Your task to perform on an android device: open wifi settings Image 0: 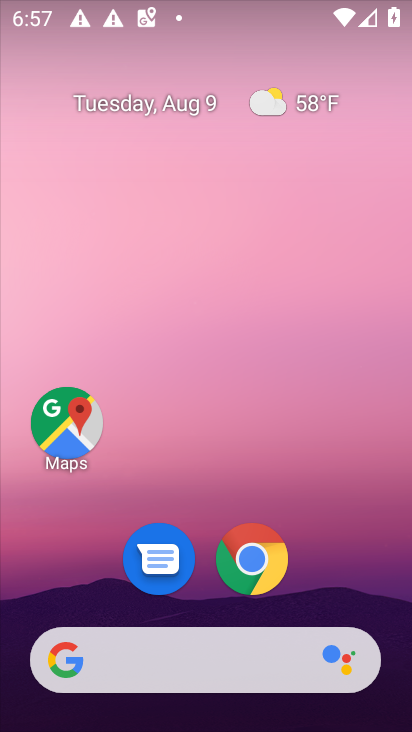
Step 0: drag from (208, 520) to (190, 121)
Your task to perform on an android device: open wifi settings Image 1: 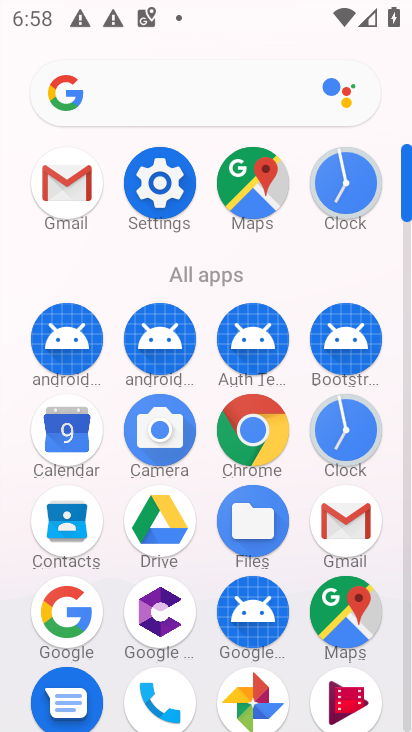
Step 1: drag from (204, 472) to (208, 343)
Your task to perform on an android device: open wifi settings Image 2: 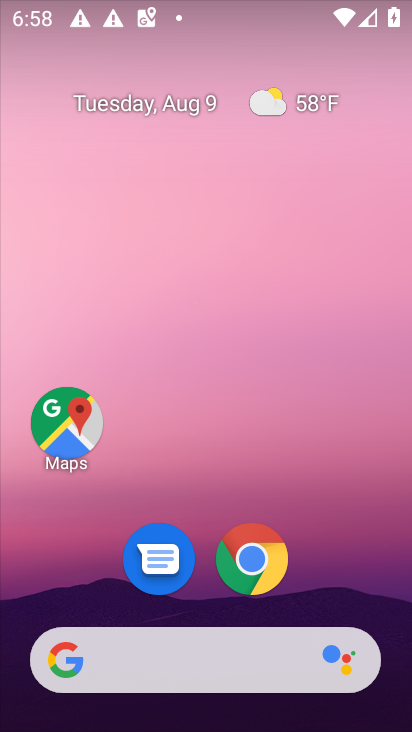
Step 2: drag from (217, 599) to (214, 241)
Your task to perform on an android device: open wifi settings Image 3: 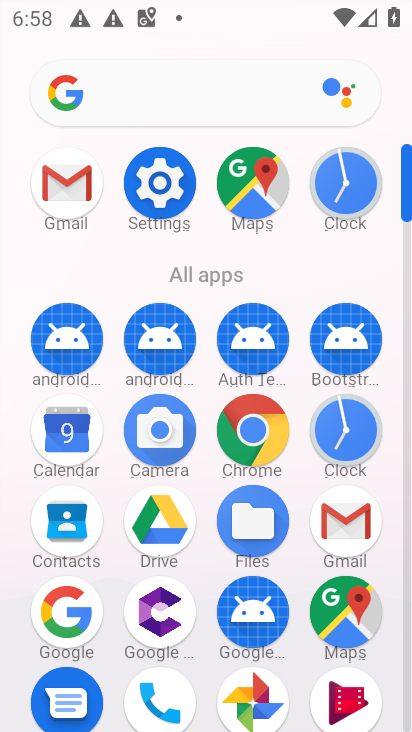
Step 3: click (158, 190)
Your task to perform on an android device: open wifi settings Image 4: 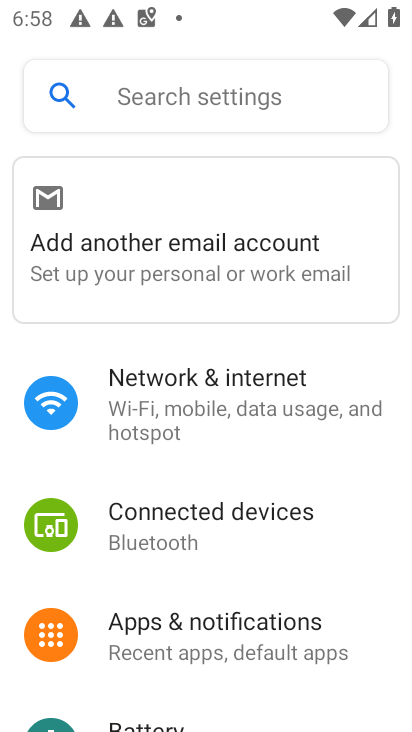
Step 4: click (171, 397)
Your task to perform on an android device: open wifi settings Image 5: 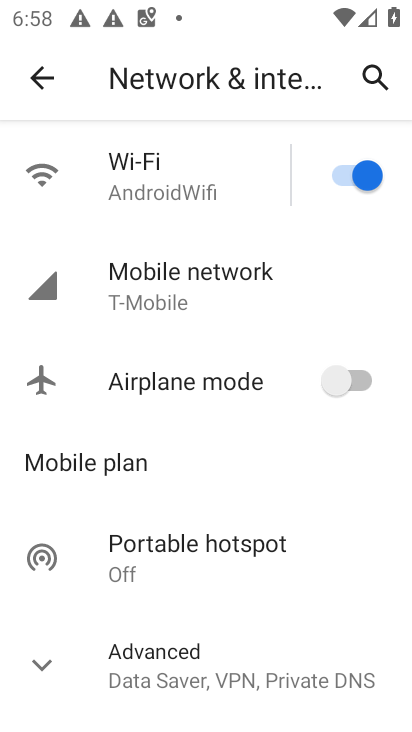
Step 5: click (136, 180)
Your task to perform on an android device: open wifi settings Image 6: 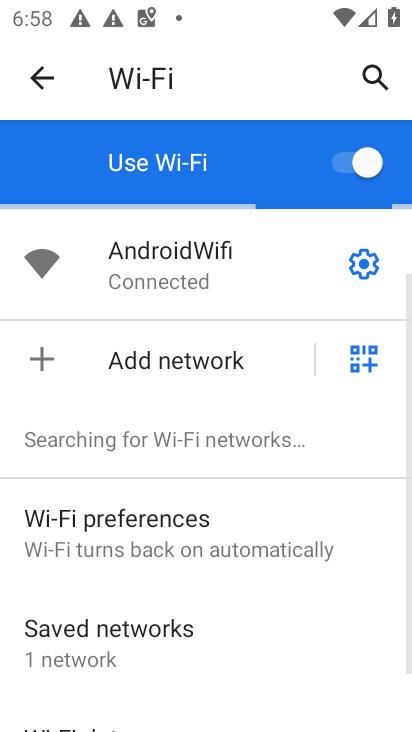
Step 6: task complete